Your task to perform on an android device: turn off javascript in the chrome app Image 0: 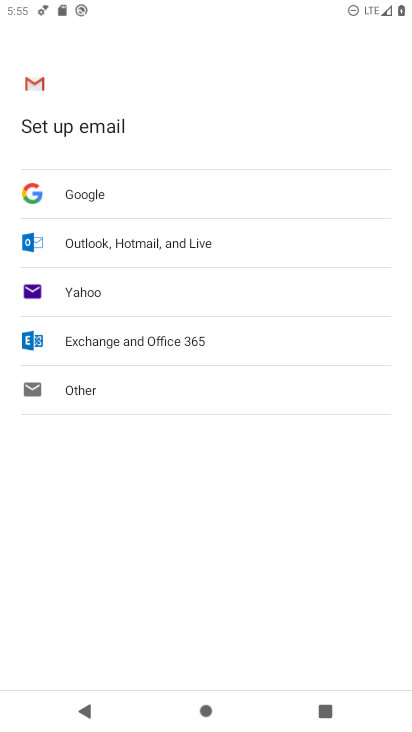
Step 0: press home button
Your task to perform on an android device: turn off javascript in the chrome app Image 1: 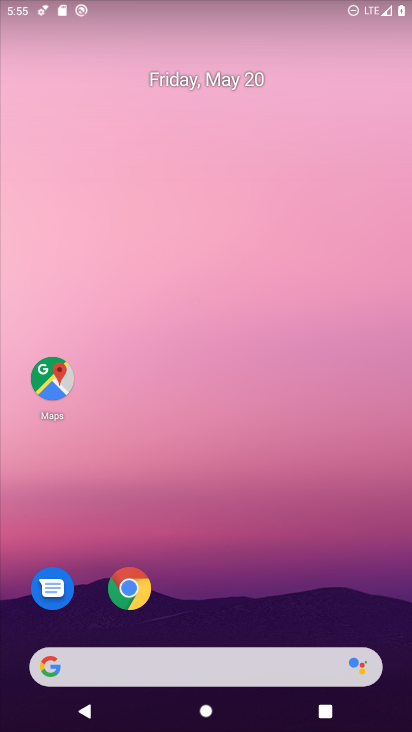
Step 1: click (120, 601)
Your task to perform on an android device: turn off javascript in the chrome app Image 2: 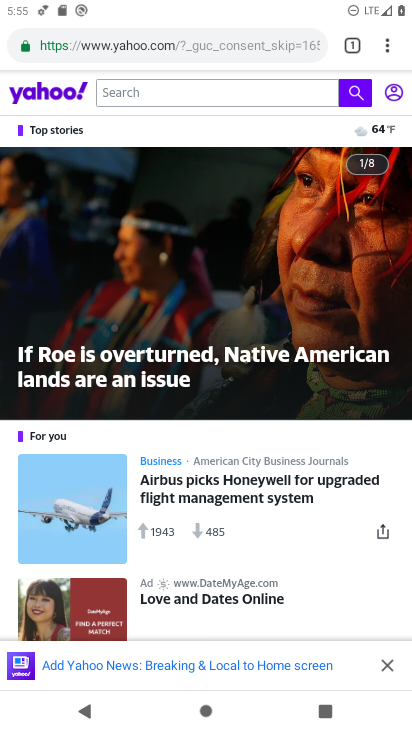
Step 2: click (388, 50)
Your task to perform on an android device: turn off javascript in the chrome app Image 3: 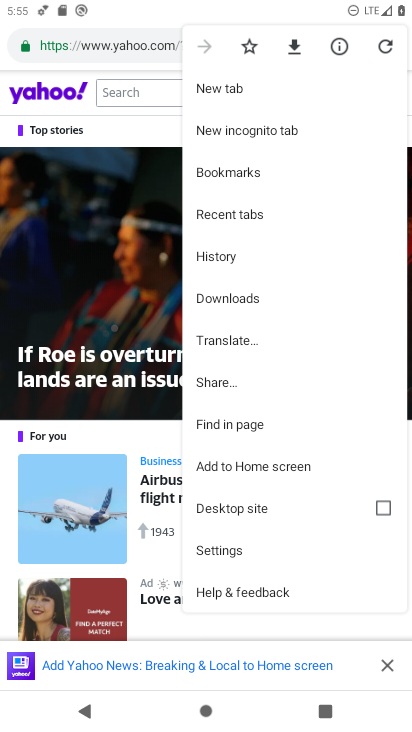
Step 3: click (225, 558)
Your task to perform on an android device: turn off javascript in the chrome app Image 4: 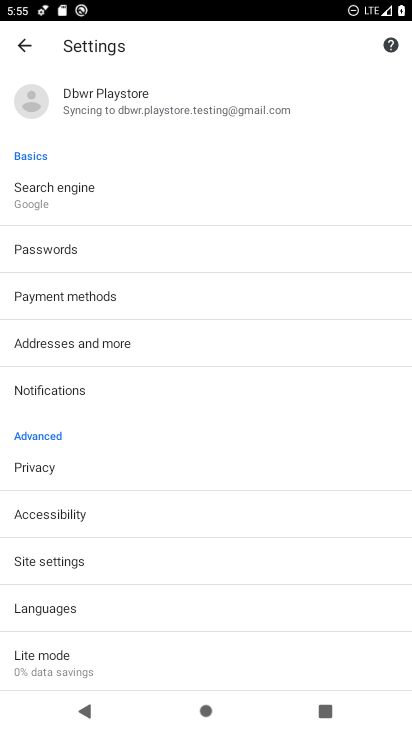
Step 4: click (67, 569)
Your task to perform on an android device: turn off javascript in the chrome app Image 5: 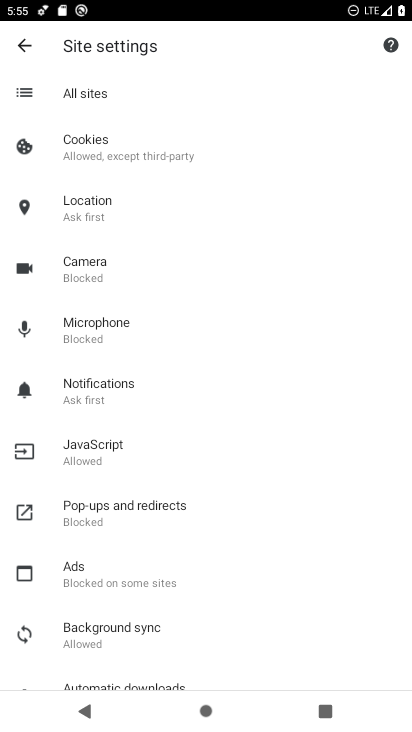
Step 5: click (95, 447)
Your task to perform on an android device: turn off javascript in the chrome app Image 6: 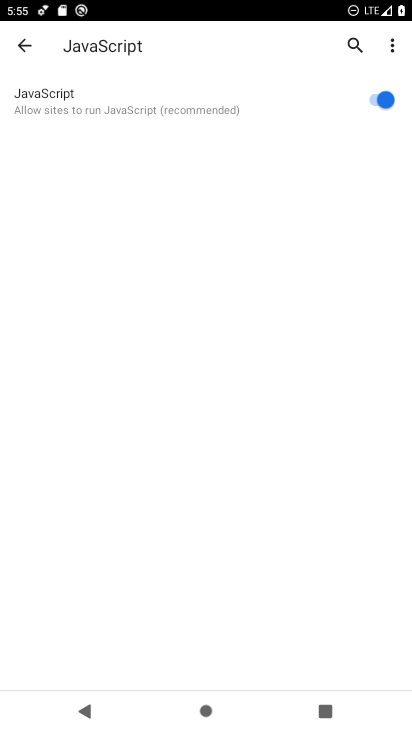
Step 6: click (368, 107)
Your task to perform on an android device: turn off javascript in the chrome app Image 7: 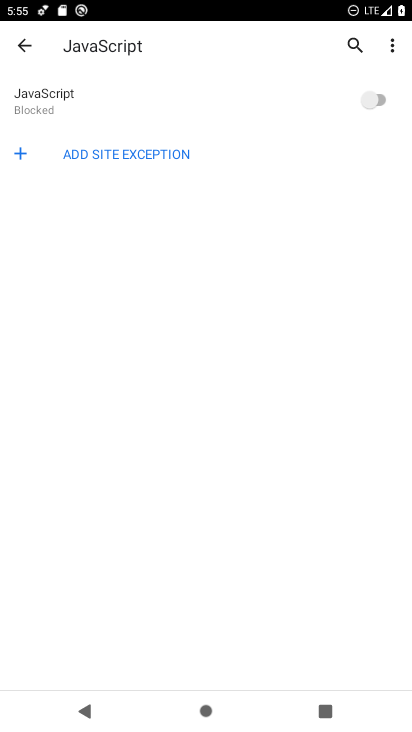
Step 7: task complete